Your task to perform on an android device: Go to Android settings Image 0: 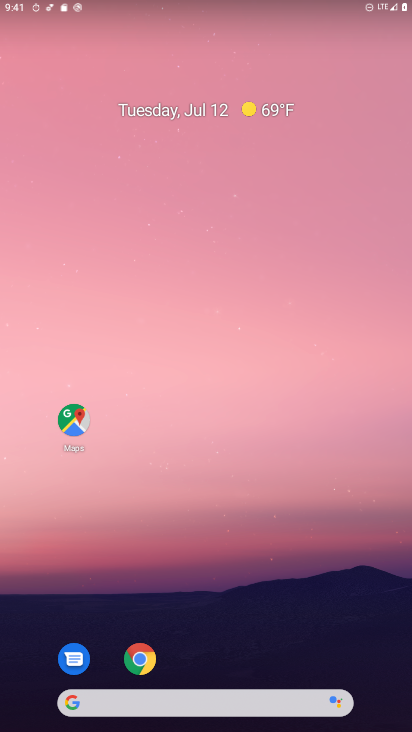
Step 0: drag from (222, 724) to (196, 139)
Your task to perform on an android device: Go to Android settings Image 1: 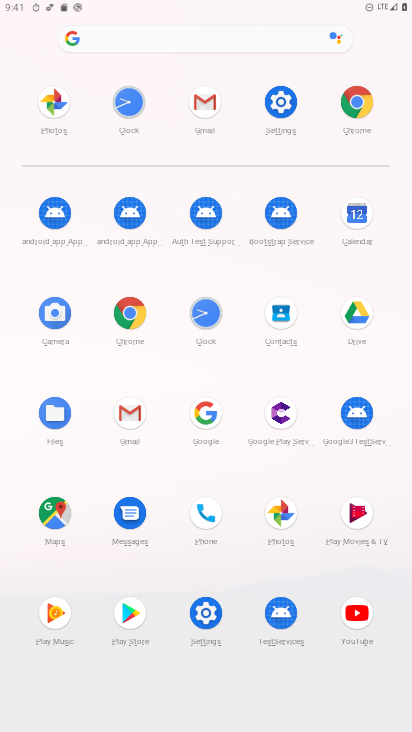
Step 1: click (277, 98)
Your task to perform on an android device: Go to Android settings Image 2: 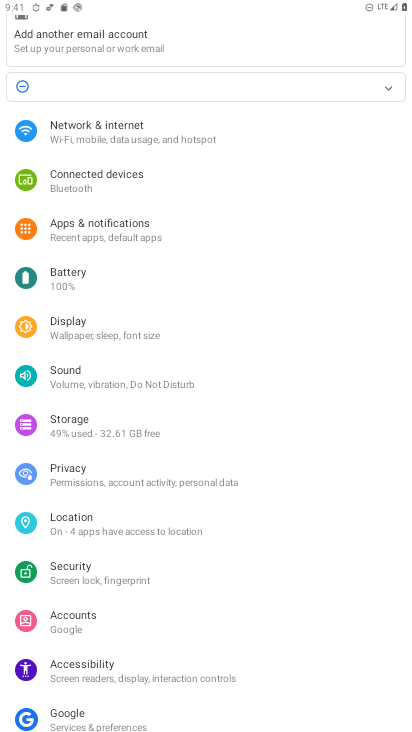
Step 2: task complete